Your task to perform on an android device: Search for Mexican restaurants on Maps Image 0: 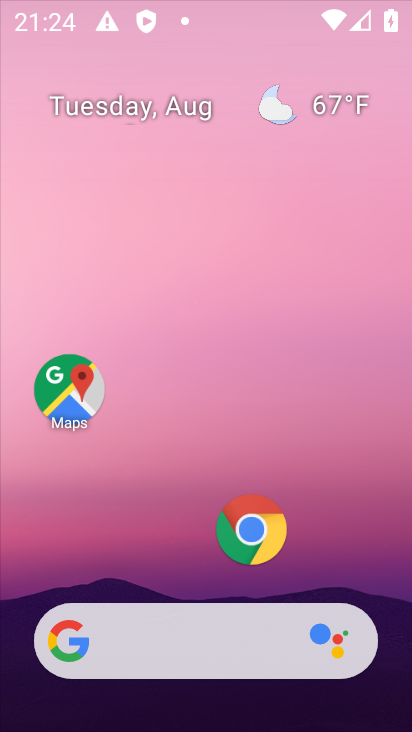
Step 0: drag from (211, 563) to (234, 88)
Your task to perform on an android device: Search for Mexican restaurants on Maps Image 1: 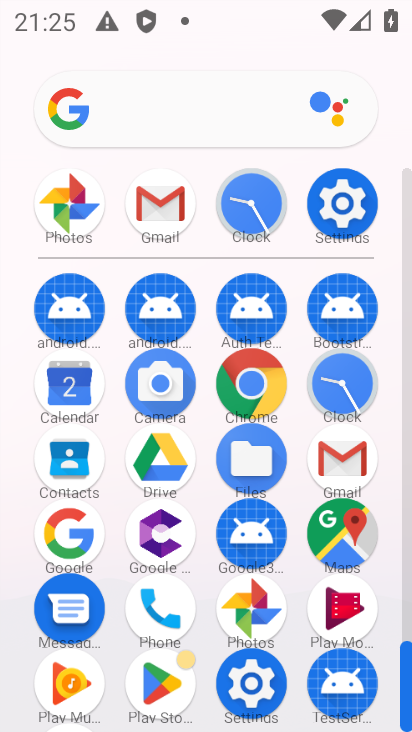
Step 1: click (349, 544)
Your task to perform on an android device: Search for Mexican restaurants on Maps Image 2: 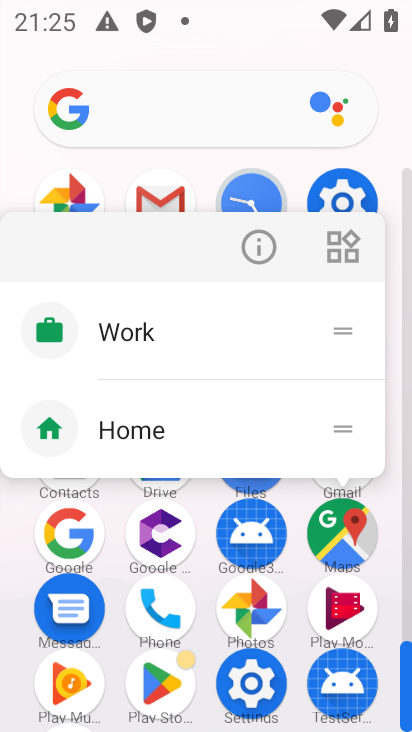
Step 2: click (251, 249)
Your task to perform on an android device: Search for Mexican restaurants on Maps Image 3: 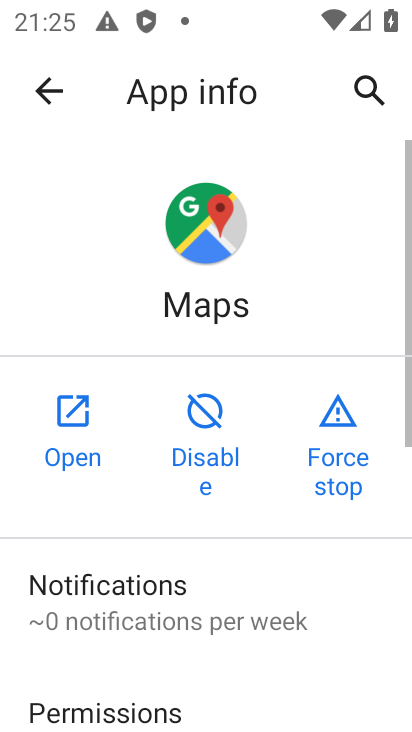
Step 3: click (88, 411)
Your task to perform on an android device: Search for Mexican restaurants on Maps Image 4: 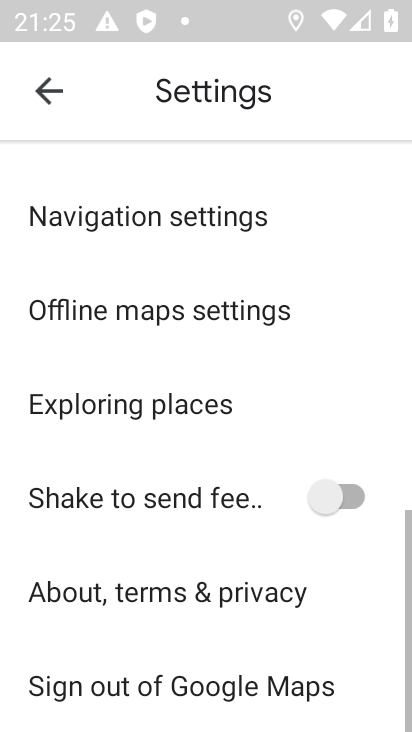
Step 4: drag from (184, 576) to (246, 272)
Your task to perform on an android device: Search for Mexican restaurants on Maps Image 5: 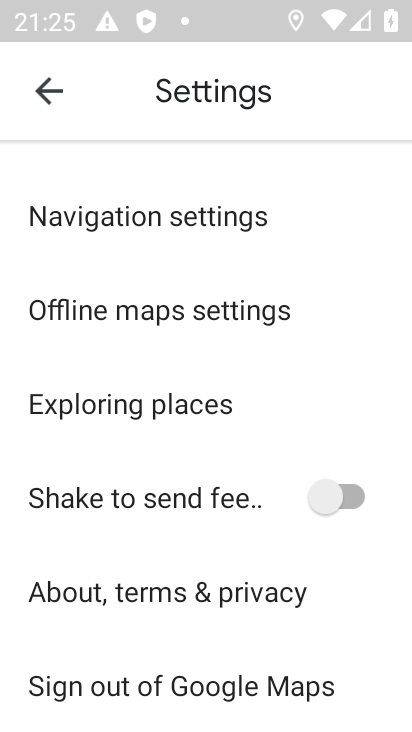
Step 5: drag from (254, 261) to (223, 722)
Your task to perform on an android device: Search for Mexican restaurants on Maps Image 6: 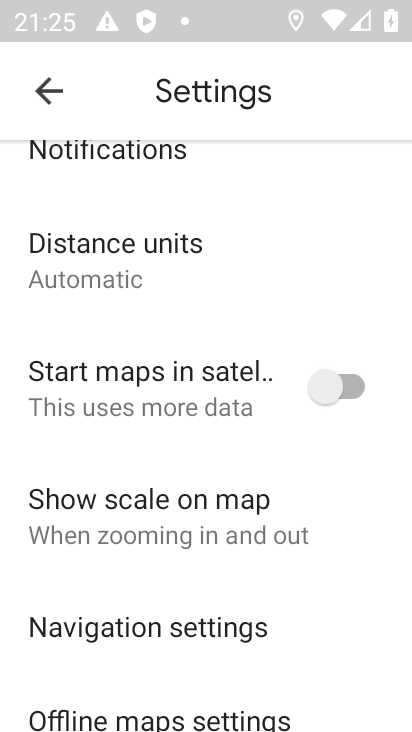
Step 6: click (49, 81)
Your task to perform on an android device: Search for Mexican restaurants on Maps Image 7: 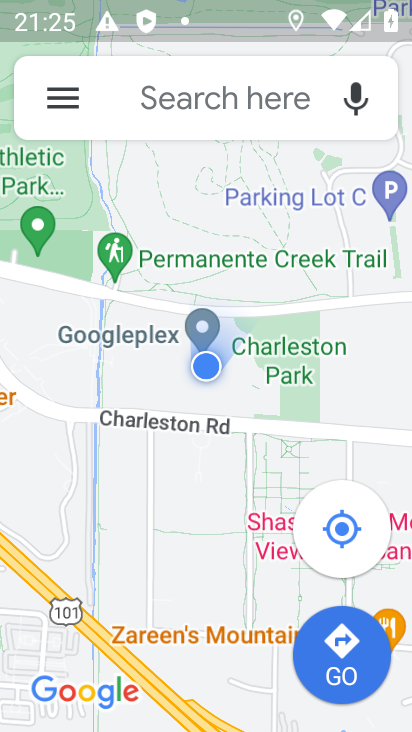
Step 7: click (172, 91)
Your task to perform on an android device: Search for Mexican restaurants on Maps Image 8: 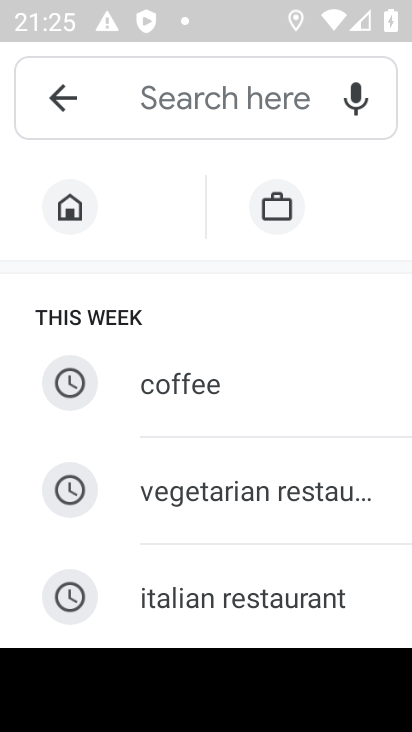
Step 8: click (218, 102)
Your task to perform on an android device: Search for Mexican restaurants on Maps Image 9: 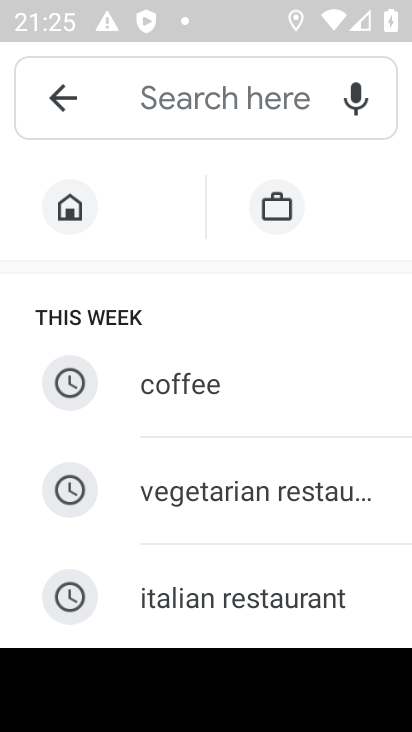
Step 9: type "Mexican restaurants"
Your task to perform on an android device: Search for Mexican restaurants on Maps Image 10: 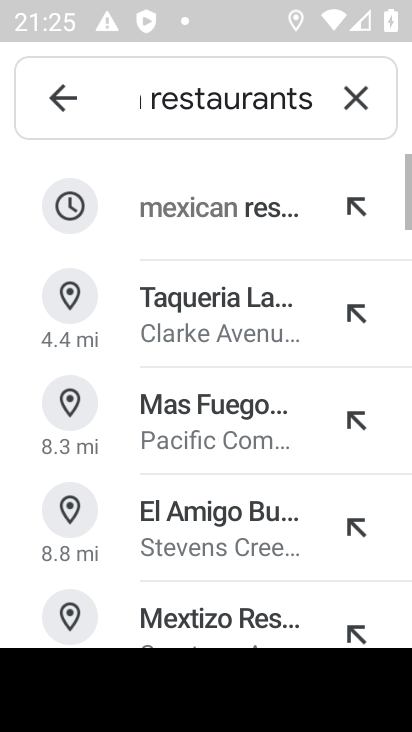
Step 10: click (235, 224)
Your task to perform on an android device: Search for Mexican restaurants on Maps Image 11: 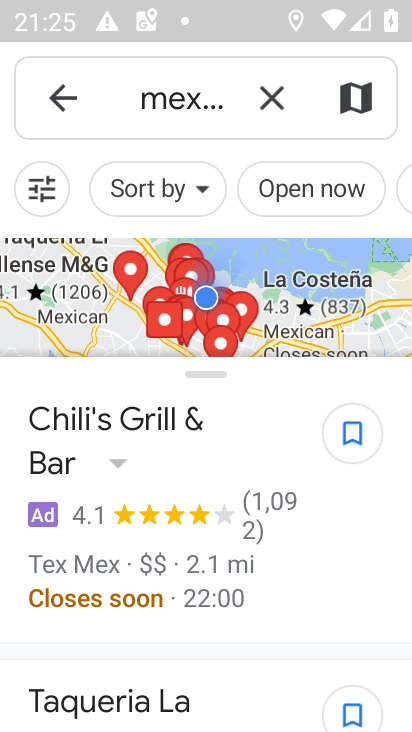
Step 11: task complete